Your task to perform on an android device: Show me recent news Image 0: 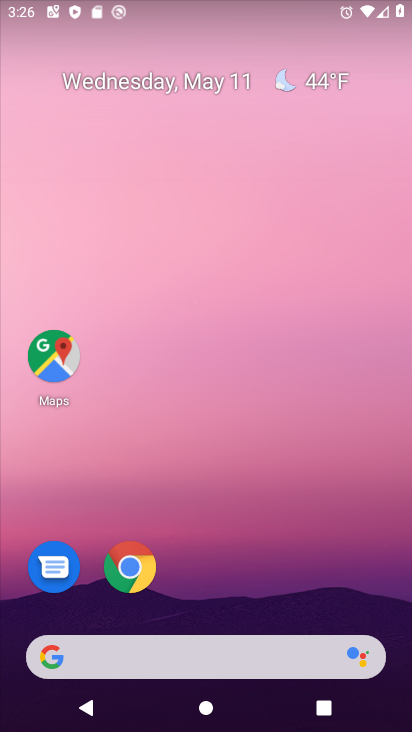
Step 0: drag from (332, 504) to (256, 70)
Your task to perform on an android device: Show me recent news Image 1: 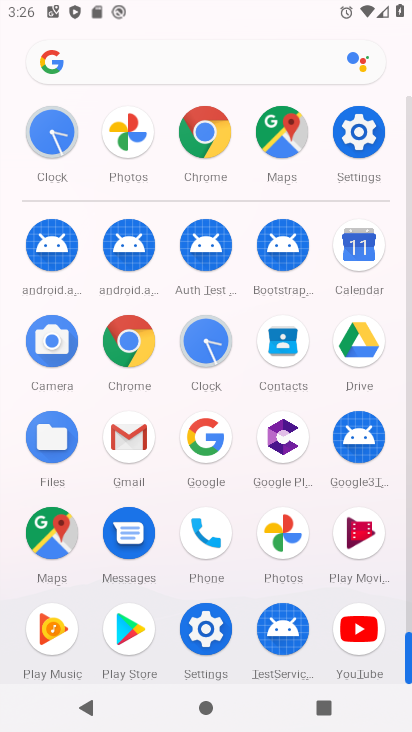
Step 1: drag from (19, 504) to (22, 182)
Your task to perform on an android device: Show me recent news Image 2: 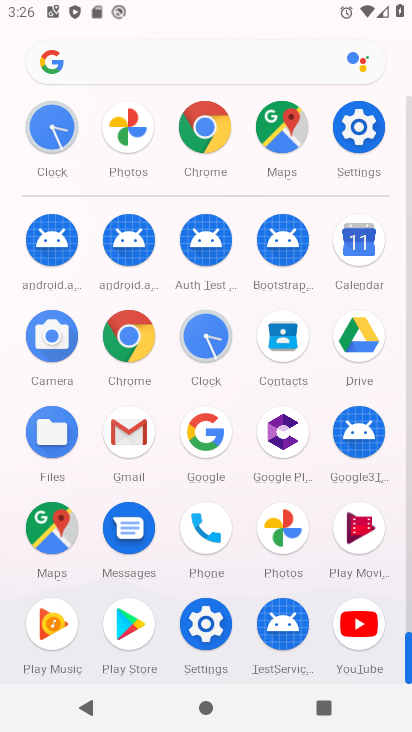
Step 2: drag from (6, 543) to (6, 330)
Your task to perform on an android device: Show me recent news Image 3: 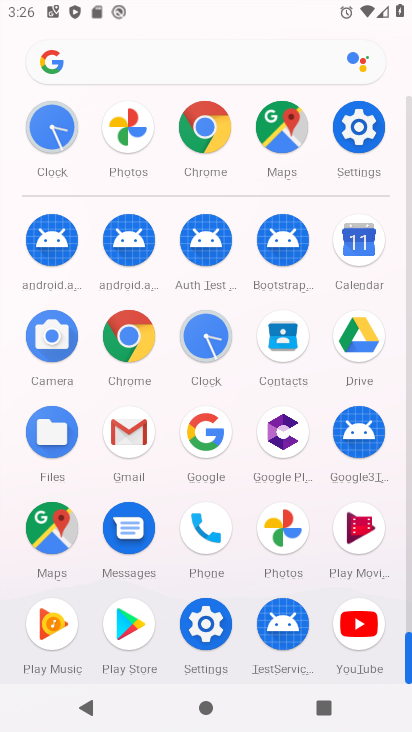
Step 3: click (123, 334)
Your task to perform on an android device: Show me recent news Image 4: 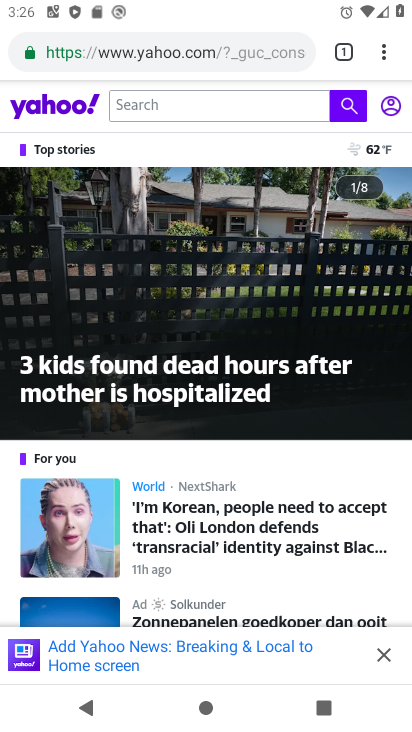
Step 4: click (199, 46)
Your task to perform on an android device: Show me recent news Image 5: 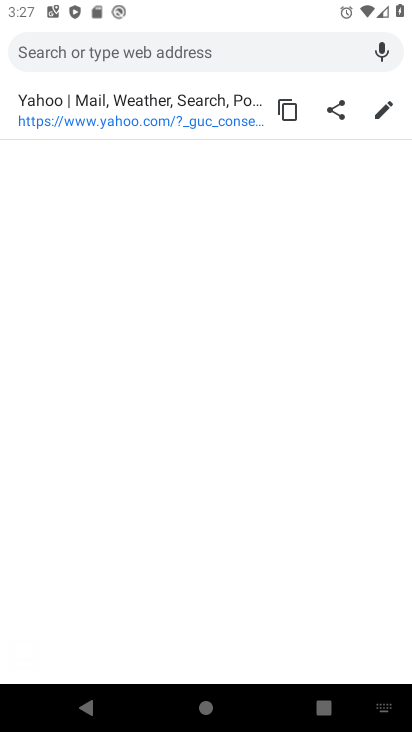
Step 5: type "Show me recent news"
Your task to perform on an android device: Show me recent news Image 6: 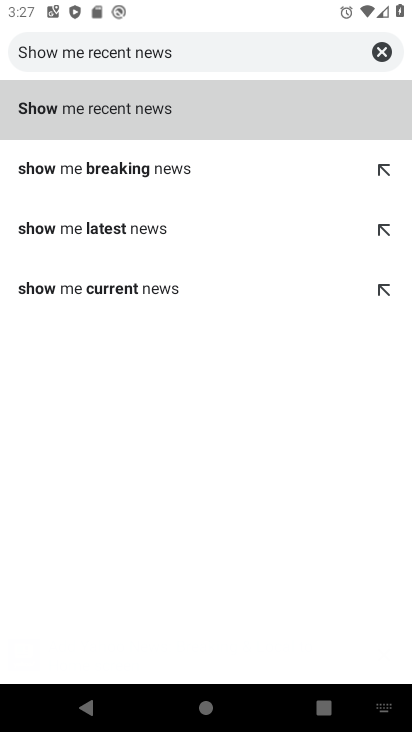
Step 6: click (198, 115)
Your task to perform on an android device: Show me recent news Image 7: 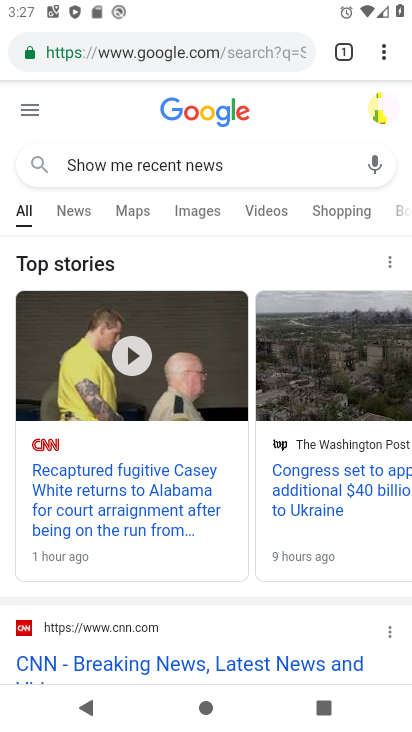
Step 7: task complete